Your task to perform on an android device: Open the stopwatch Image 0: 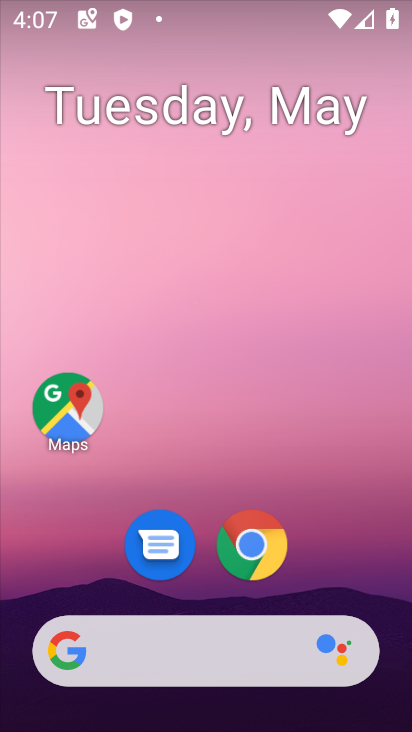
Step 0: drag from (326, 548) to (235, 109)
Your task to perform on an android device: Open the stopwatch Image 1: 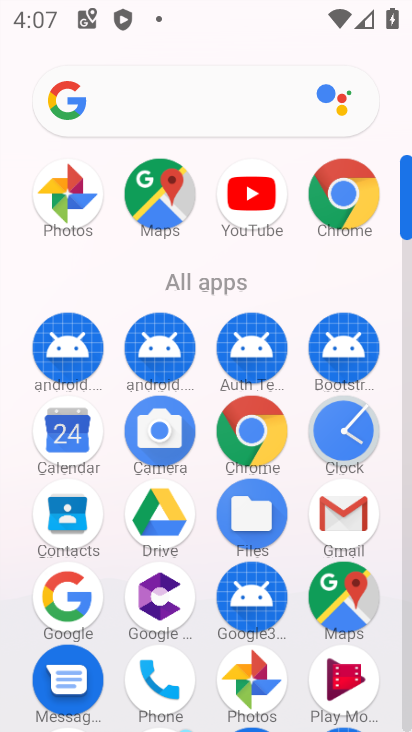
Step 1: click (345, 431)
Your task to perform on an android device: Open the stopwatch Image 2: 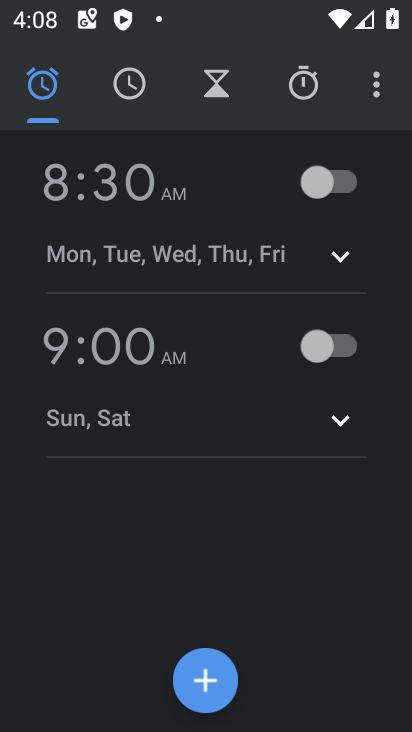
Step 2: click (307, 95)
Your task to perform on an android device: Open the stopwatch Image 3: 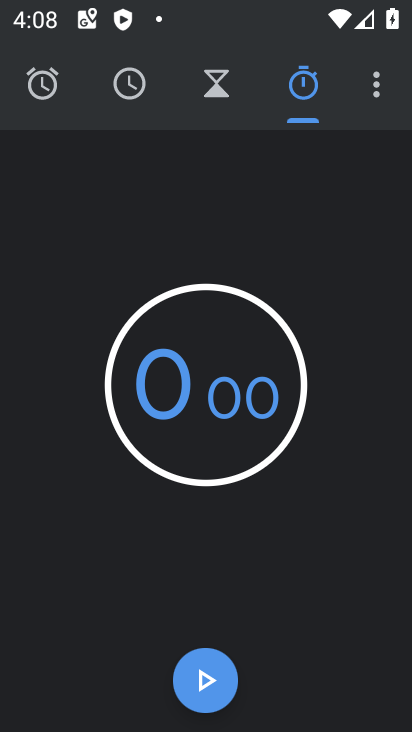
Step 3: task complete